Your task to perform on an android device: Show me productivity apps on the Play Store Image 0: 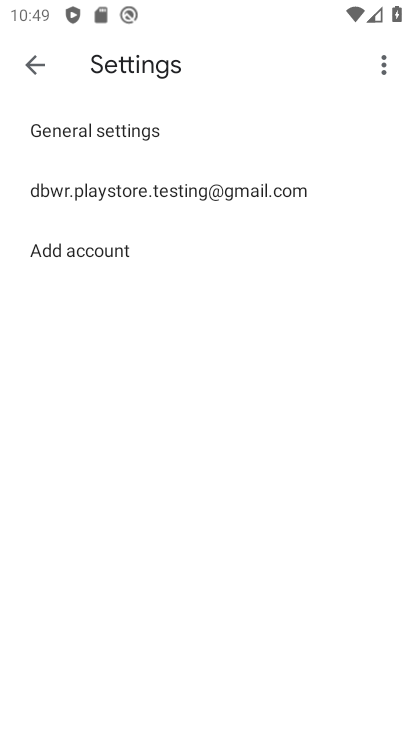
Step 0: press home button
Your task to perform on an android device: Show me productivity apps on the Play Store Image 1: 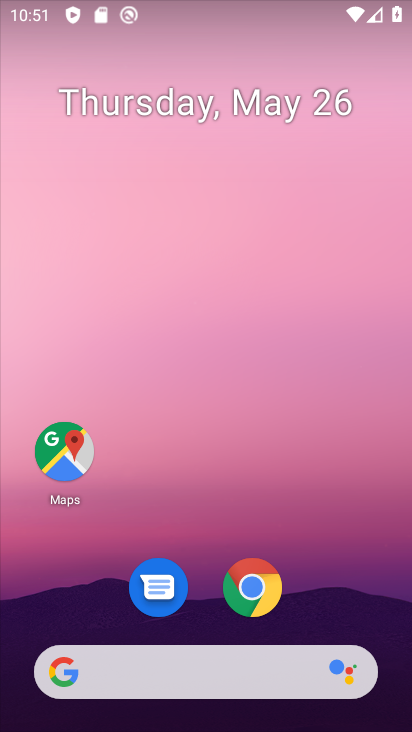
Step 1: drag from (238, 695) to (225, 234)
Your task to perform on an android device: Show me productivity apps on the Play Store Image 2: 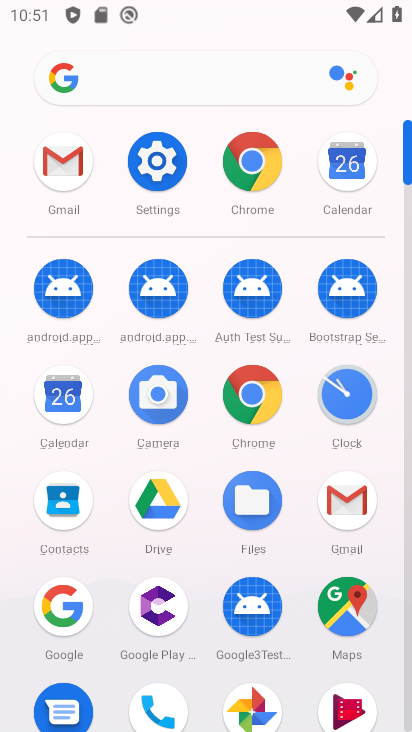
Step 2: drag from (117, 555) to (117, 322)
Your task to perform on an android device: Show me productivity apps on the Play Store Image 3: 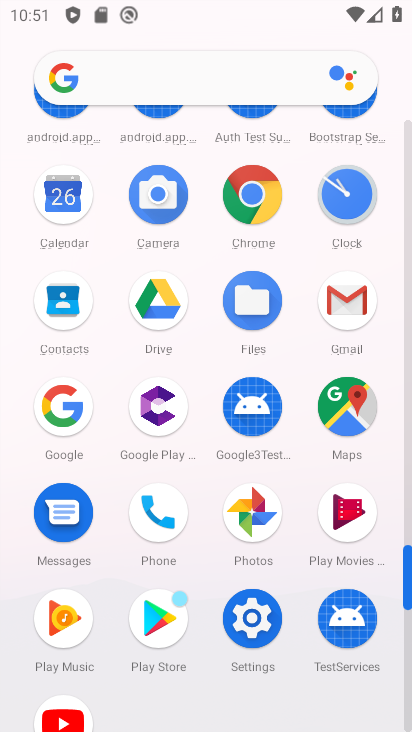
Step 3: click (170, 608)
Your task to perform on an android device: Show me productivity apps on the Play Store Image 4: 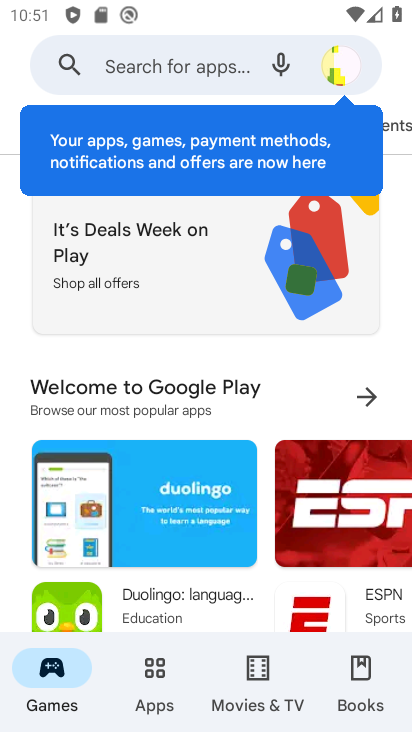
Step 4: click (149, 67)
Your task to perform on an android device: Show me productivity apps on the Play Store Image 5: 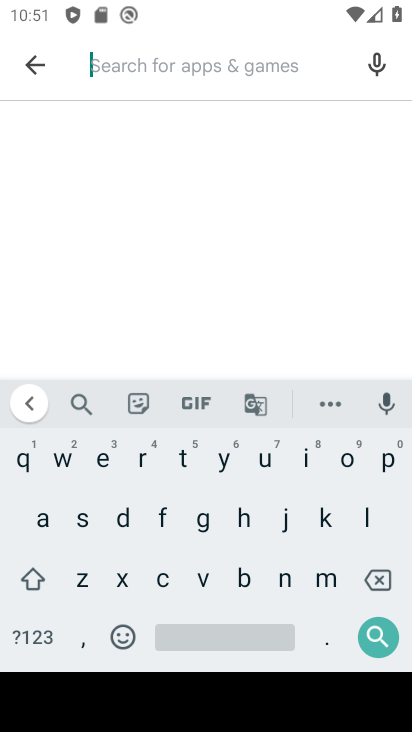
Step 5: click (391, 469)
Your task to perform on an android device: Show me productivity apps on the Play Store Image 6: 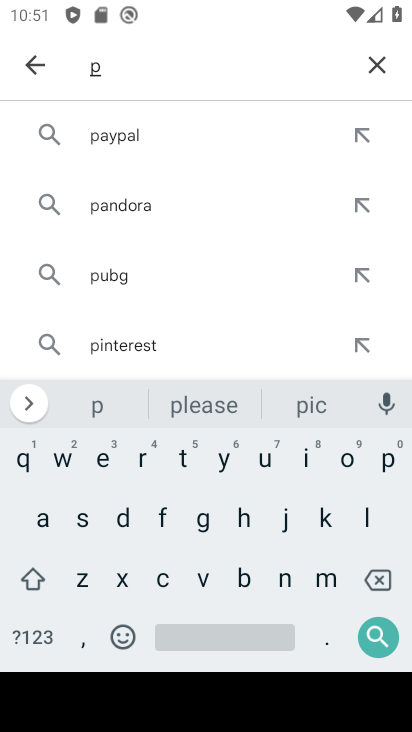
Step 6: click (137, 456)
Your task to perform on an android device: Show me productivity apps on the Play Store Image 7: 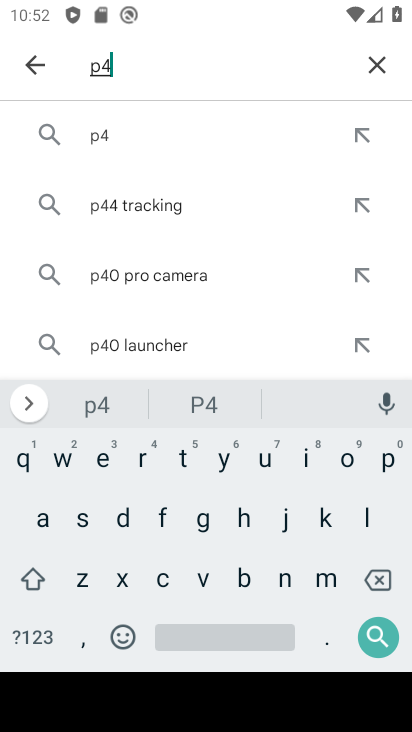
Step 7: click (383, 565)
Your task to perform on an android device: Show me productivity apps on the Play Store Image 8: 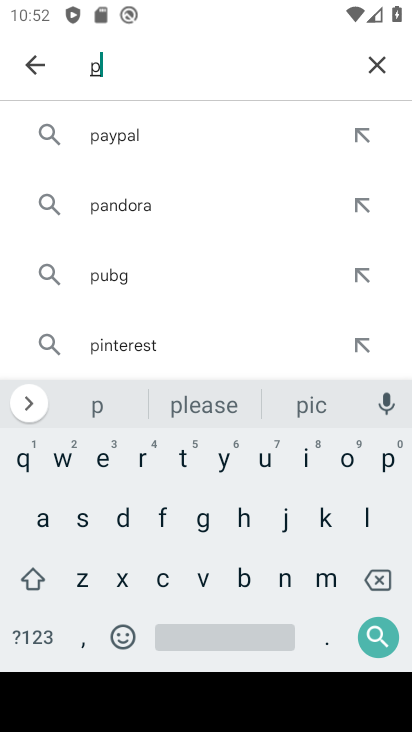
Step 8: click (140, 458)
Your task to perform on an android device: Show me productivity apps on the Play Store Image 9: 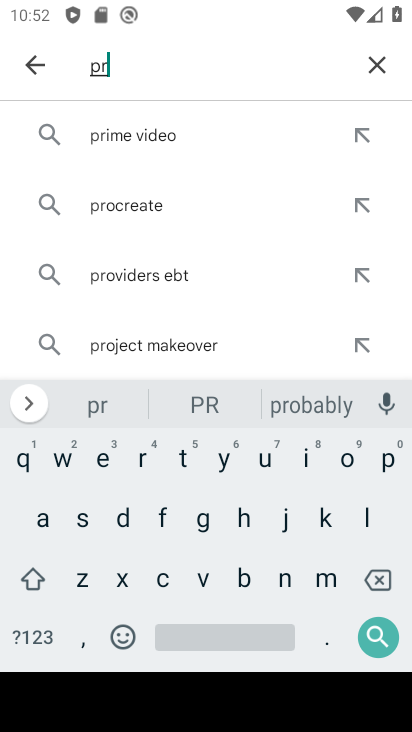
Step 9: click (340, 455)
Your task to perform on an android device: Show me productivity apps on the Play Store Image 10: 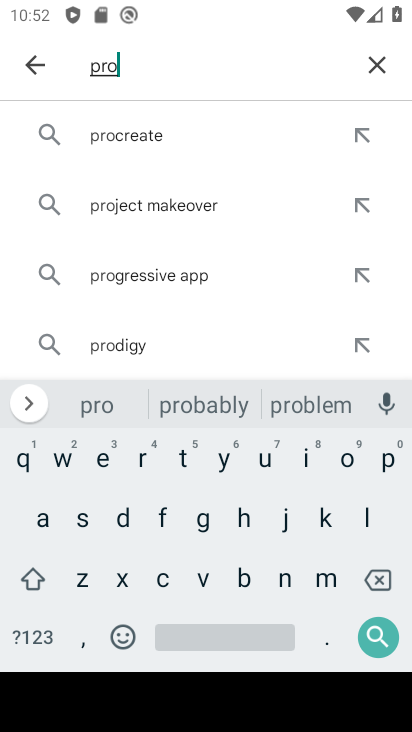
Step 10: click (121, 515)
Your task to perform on an android device: Show me productivity apps on the Play Store Image 11: 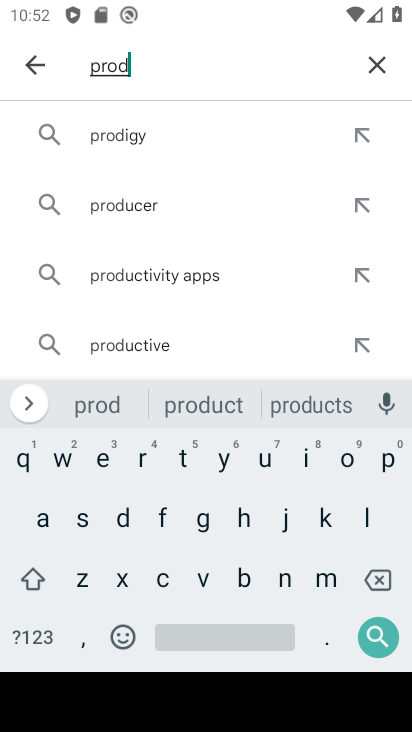
Step 11: click (258, 453)
Your task to perform on an android device: Show me productivity apps on the Play Store Image 12: 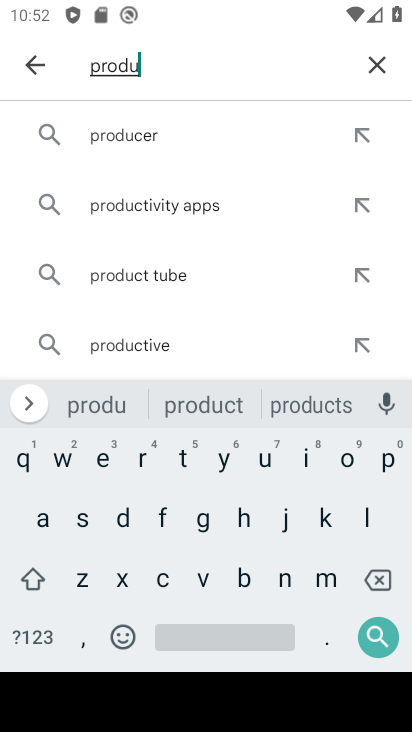
Step 12: click (163, 569)
Your task to perform on an android device: Show me productivity apps on the Play Store Image 13: 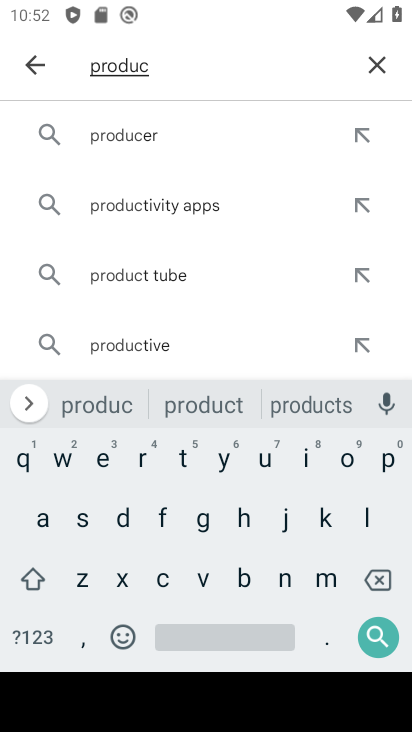
Step 13: click (183, 454)
Your task to perform on an android device: Show me productivity apps on the Play Store Image 14: 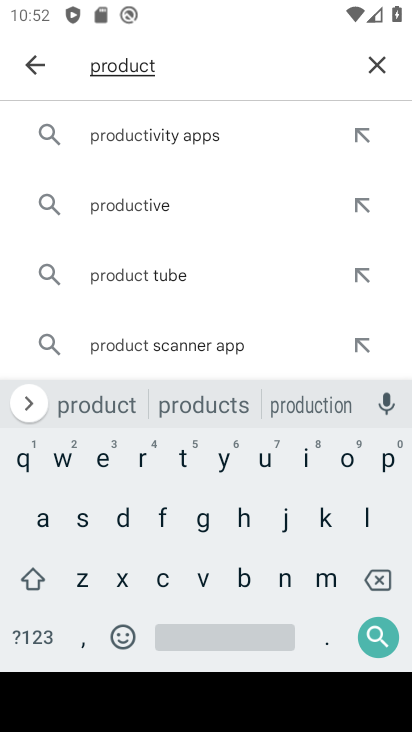
Step 14: click (301, 451)
Your task to perform on an android device: Show me productivity apps on the Play Store Image 15: 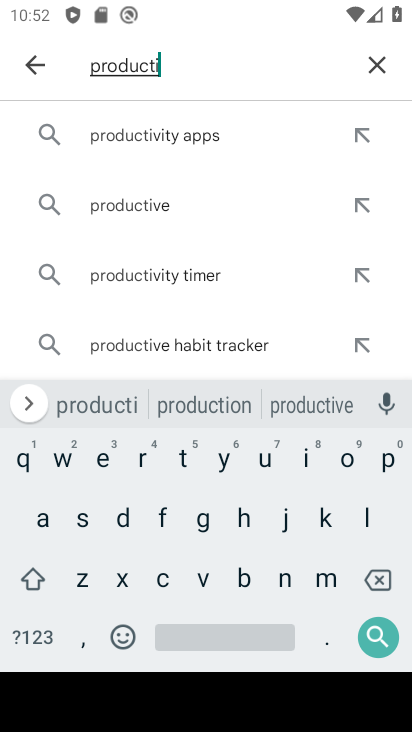
Step 15: click (203, 579)
Your task to perform on an android device: Show me productivity apps on the Play Store Image 16: 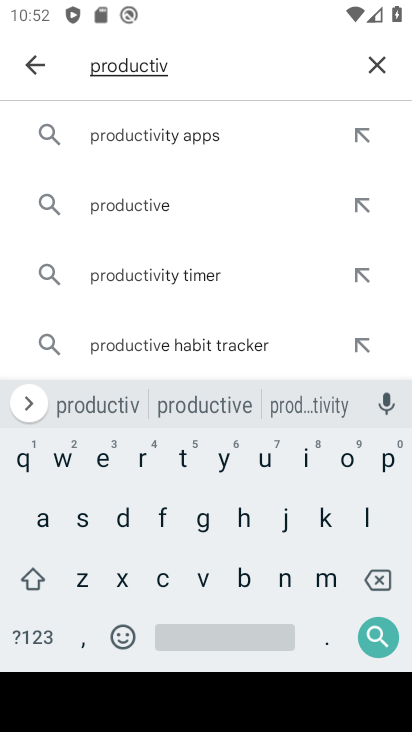
Step 16: click (194, 135)
Your task to perform on an android device: Show me productivity apps on the Play Store Image 17: 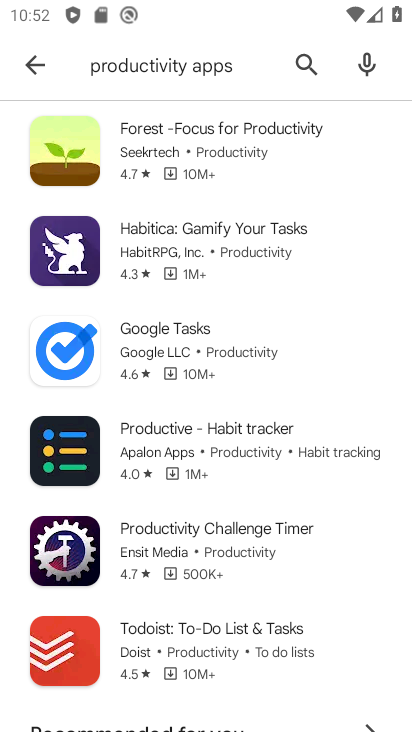
Step 17: task complete